Your task to perform on an android device: Go to location settings Image 0: 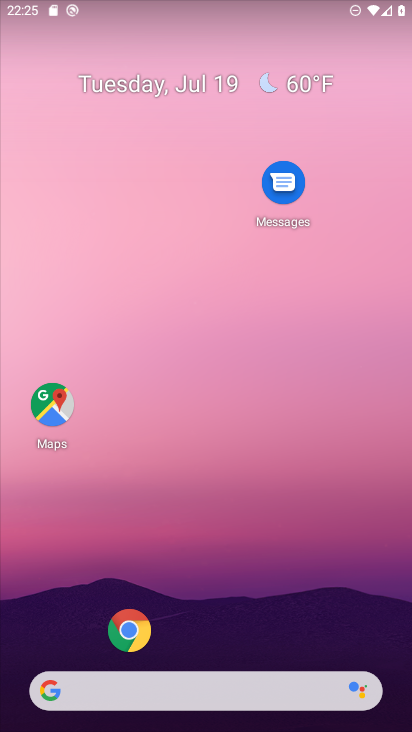
Step 0: drag from (18, 699) to (254, 222)
Your task to perform on an android device: Go to location settings Image 1: 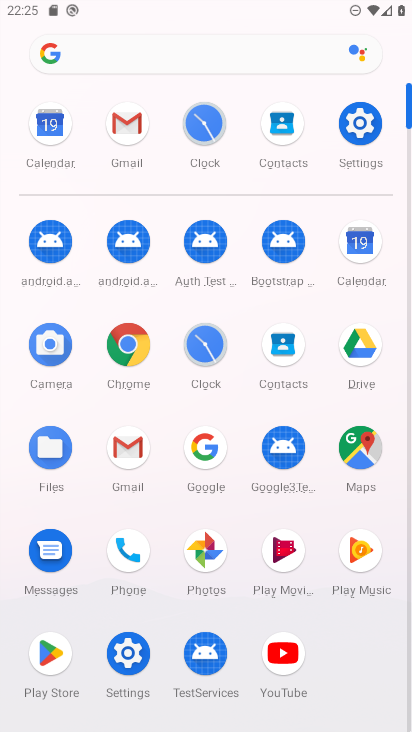
Step 1: click (130, 661)
Your task to perform on an android device: Go to location settings Image 2: 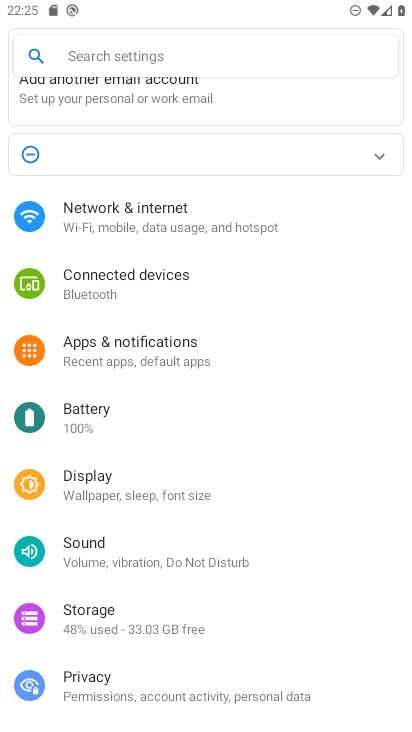
Step 2: click (363, 263)
Your task to perform on an android device: Go to location settings Image 3: 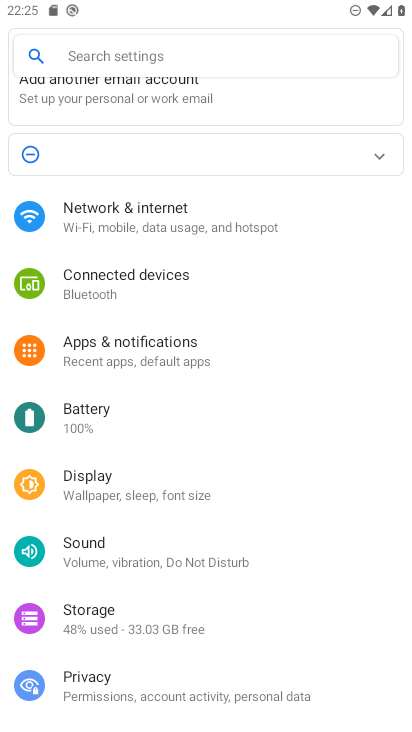
Step 3: drag from (368, 669) to (352, 290)
Your task to perform on an android device: Go to location settings Image 4: 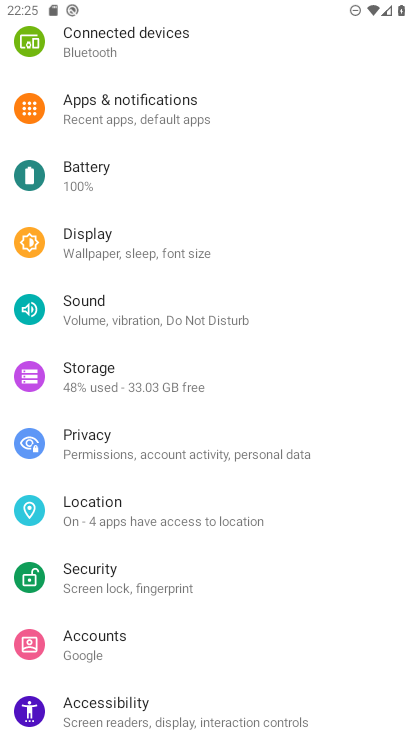
Step 4: click (147, 509)
Your task to perform on an android device: Go to location settings Image 5: 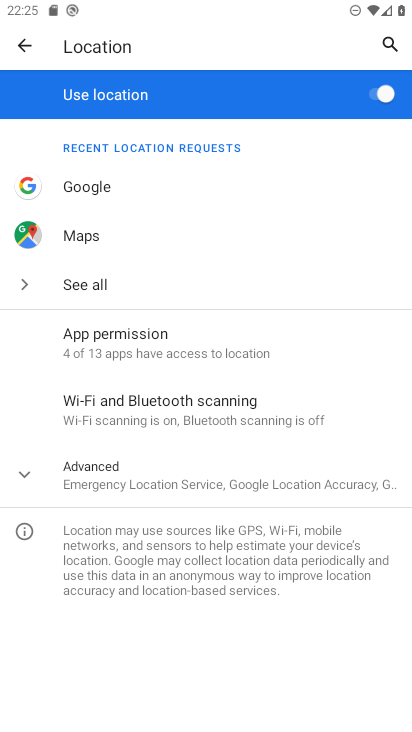
Step 5: task complete